Your task to perform on an android device: Go to network settings Image 0: 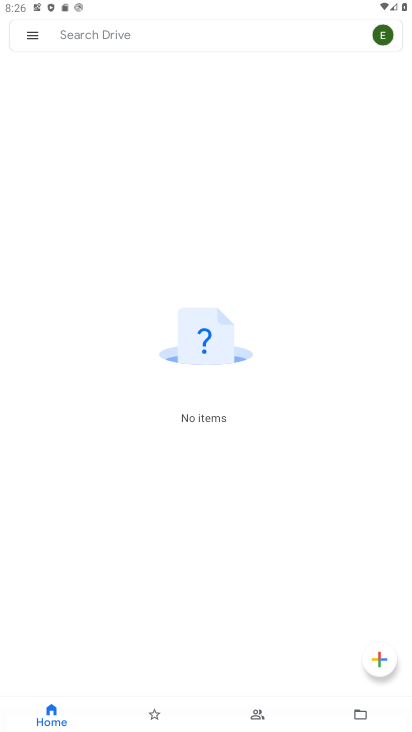
Step 0: press home button
Your task to perform on an android device: Go to network settings Image 1: 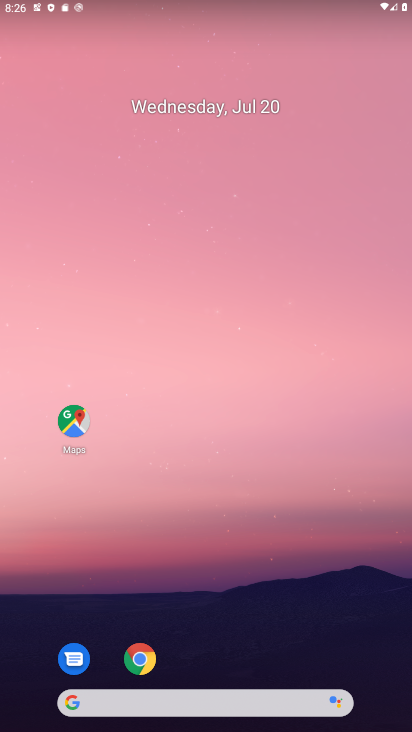
Step 1: drag from (280, 598) to (293, 106)
Your task to perform on an android device: Go to network settings Image 2: 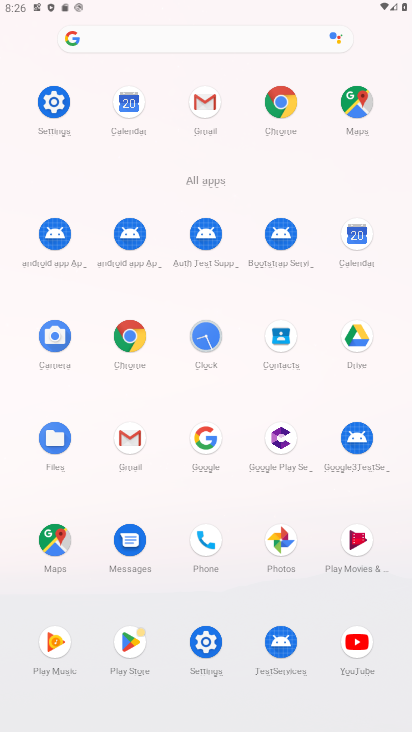
Step 2: click (201, 631)
Your task to perform on an android device: Go to network settings Image 3: 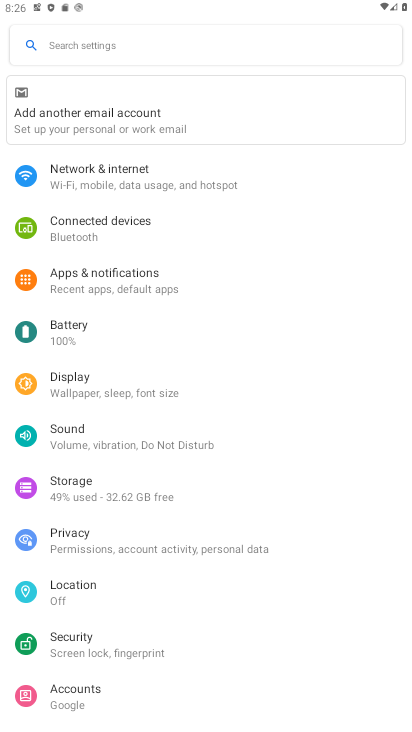
Step 3: click (138, 180)
Your task to perform on an android device: Go to network settings Image 4: 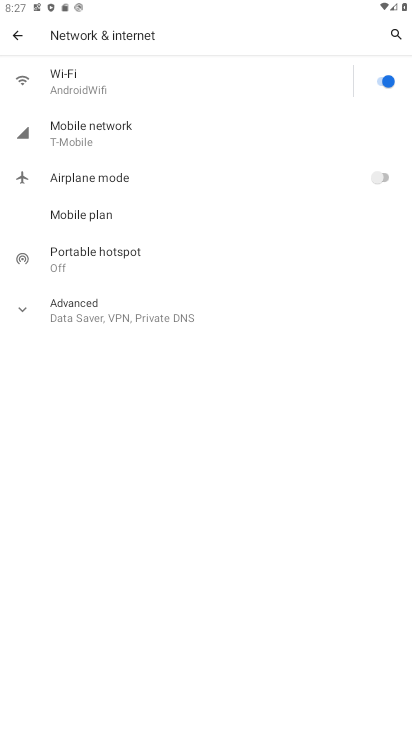
Step 4: task complete